Your task to perform on an android device: View the shopping cart on newegg. Search for logitech g910 on newegg, select the first entry, add it to the cart, then select checkout. Image 0: 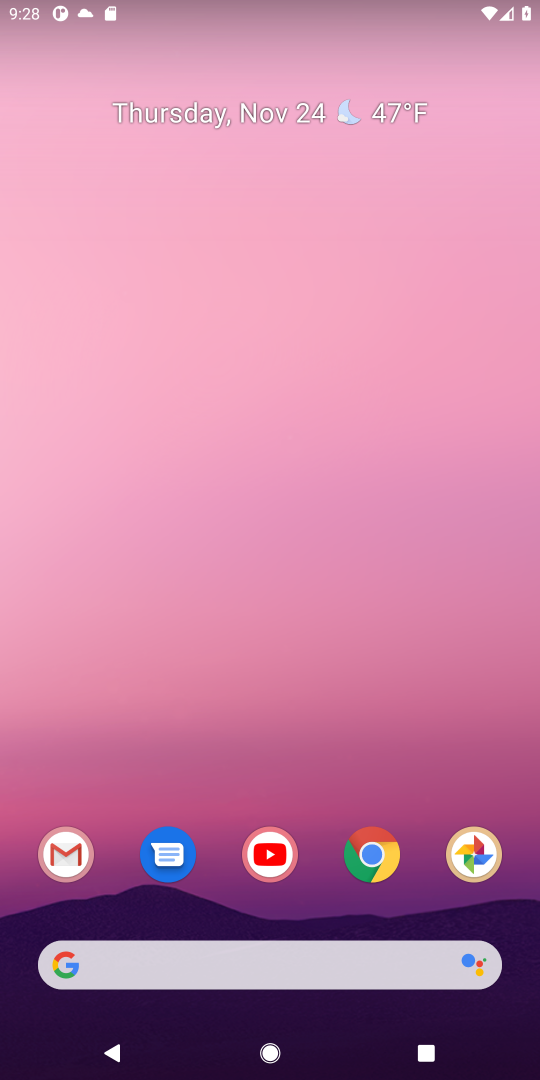
Step 0: click (381, 864)
Your task to perform on an android device: View the shopping cart on newegg. Search for logitech g910 on newegg, select the first entry, add it to the cart, then select checkout. Image 1: 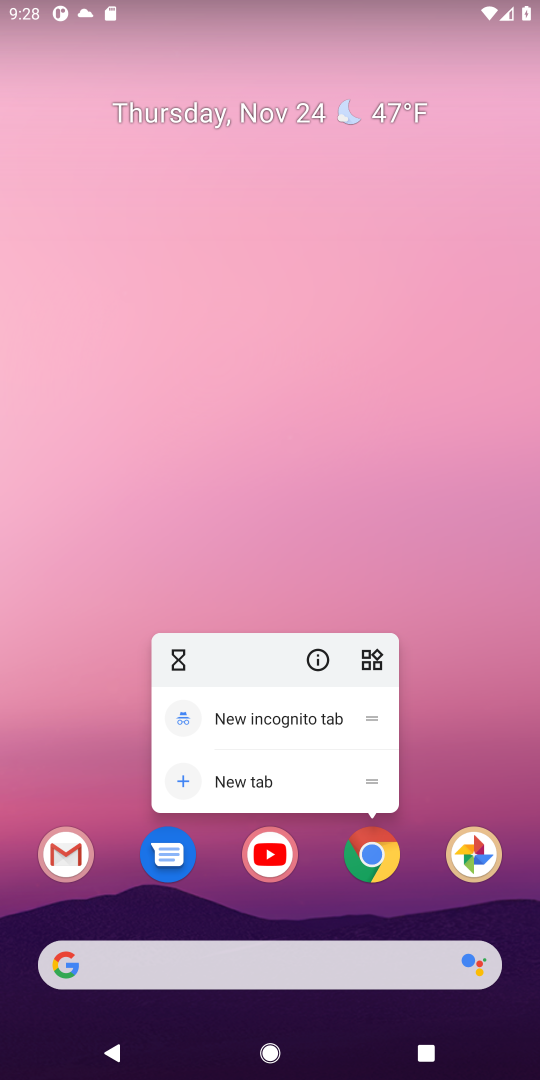
Step 1: click (381, 864)
Your task to perform on an android device: View the shopping cart on newegg. Search for logitech g910 on newegg, select the first entry, add it to the cart, then select checkout. Image 2: 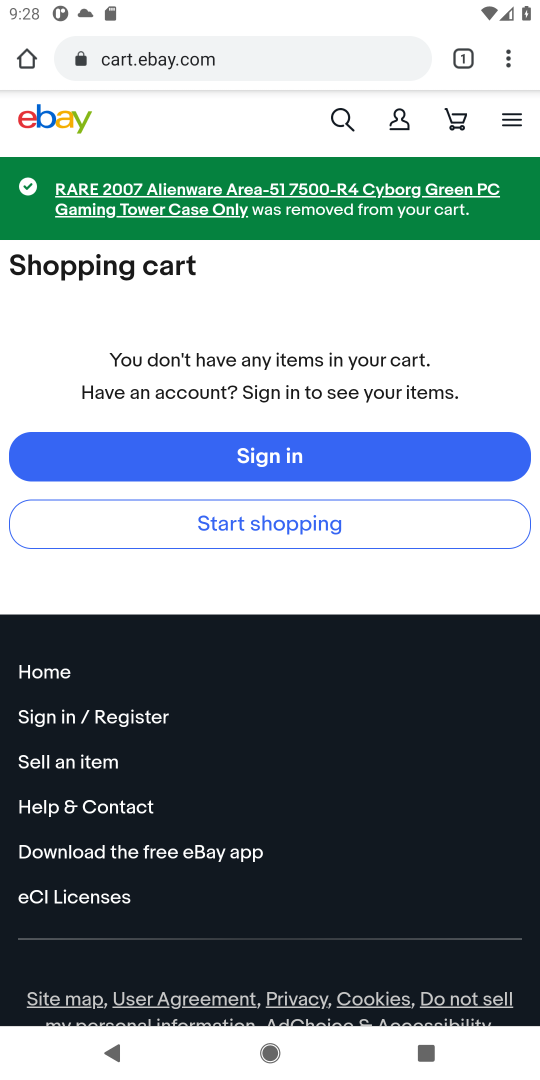
Step 2: click (202, 53)
Your task to perform on an android device: View the shopping cart on newegg. Search for logitech g910 on newegg, select the first entry, add it to the cart, then select checkout. Image 3: 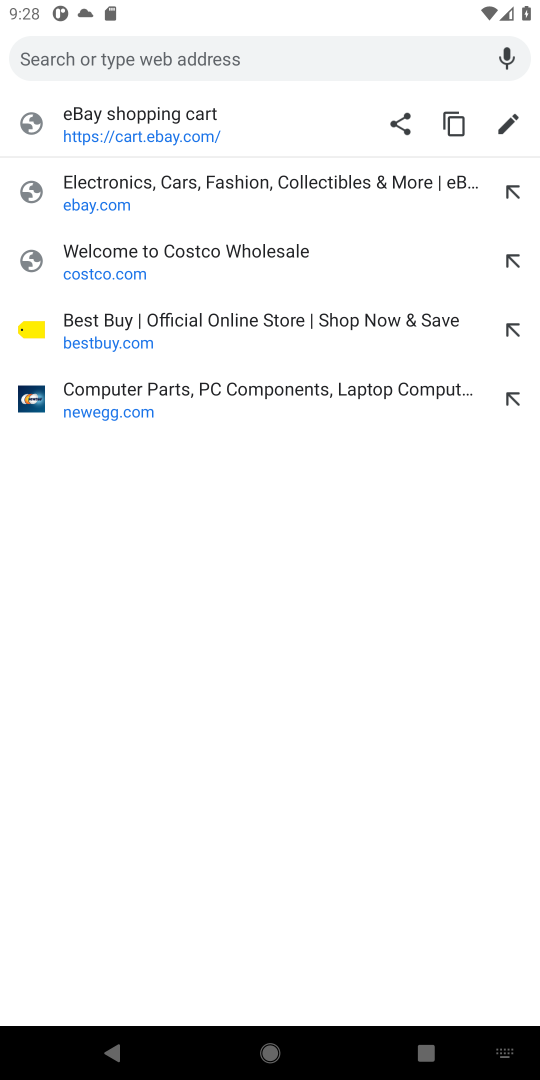
Step 3: click (101, 416)
Your task to perform on an android device: View the shopping cart on newegg. Search for logitech g910 on newegg, select the first entry, add it to the cart, then select checkout. Image 4: 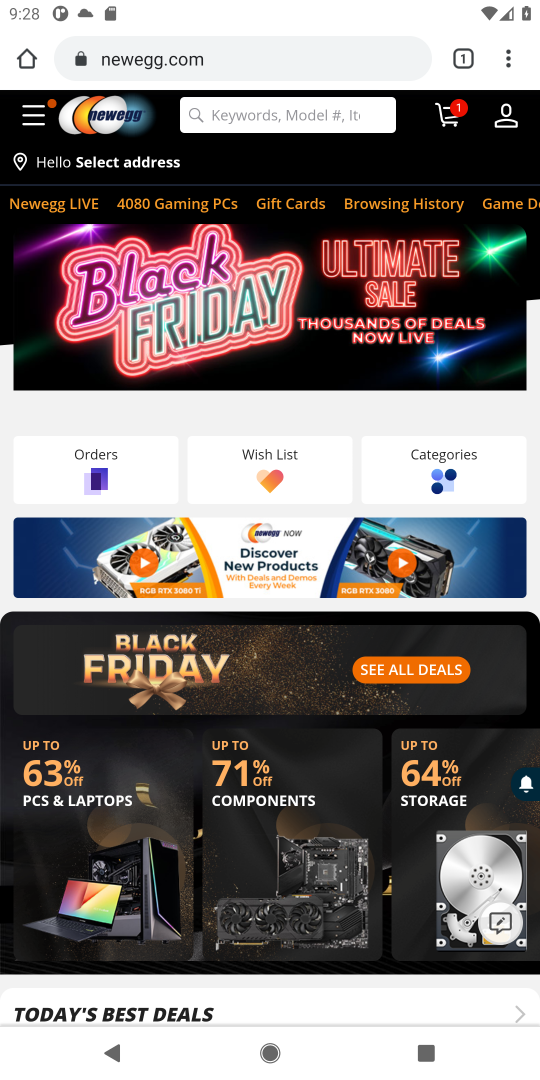
Step 4: click (453, 121)
Your task to perform on an android device: View the shopping cart on newegg. Search for logitech g910 on newegg, select the first entry, add it to the cart, then select checkout. Image 5: 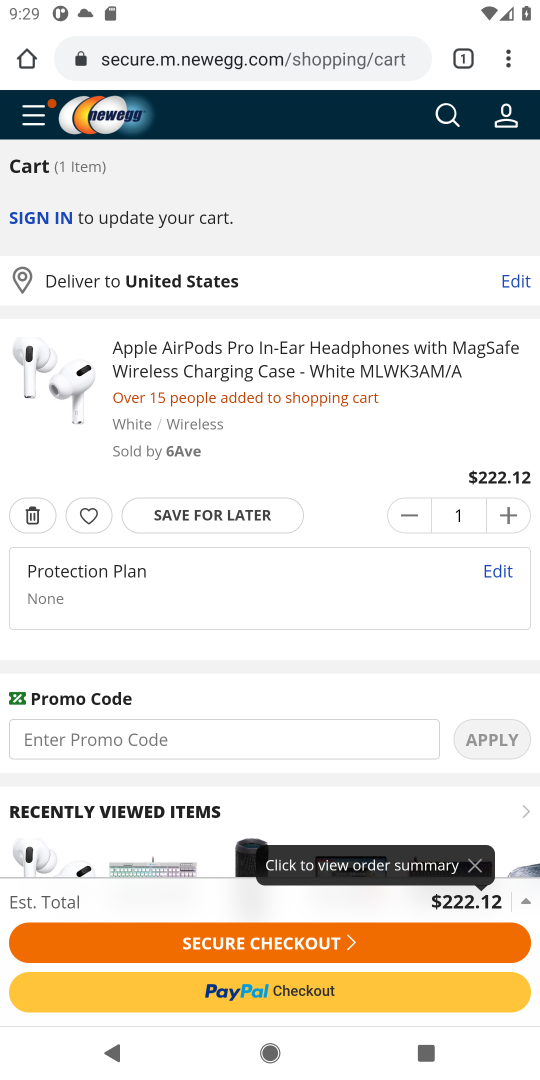
Step 5: click (444, 122)
Your task to perform on an android device: View the shopping cart on newegg. Search for logitech g910 on newegg, select the first entry, add it to the cart, then select checkout. Image 6: 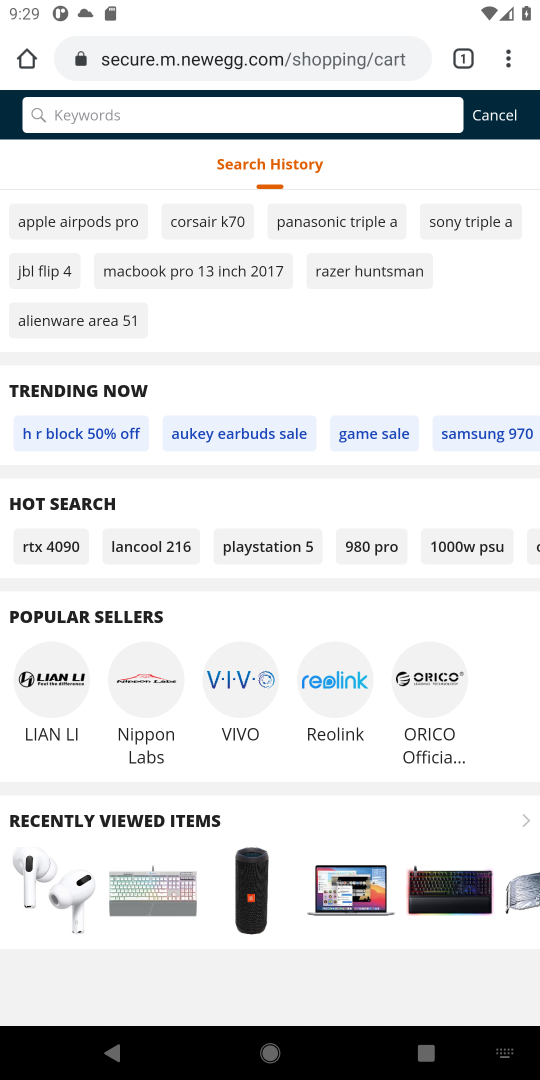
Step 6: click (444, 122)
Your task to perform on an android device: View the shopping cart on newegg. Search for logitech g910 on newegg, select the first entry, add it to the cart, then select checkout. Image 7: 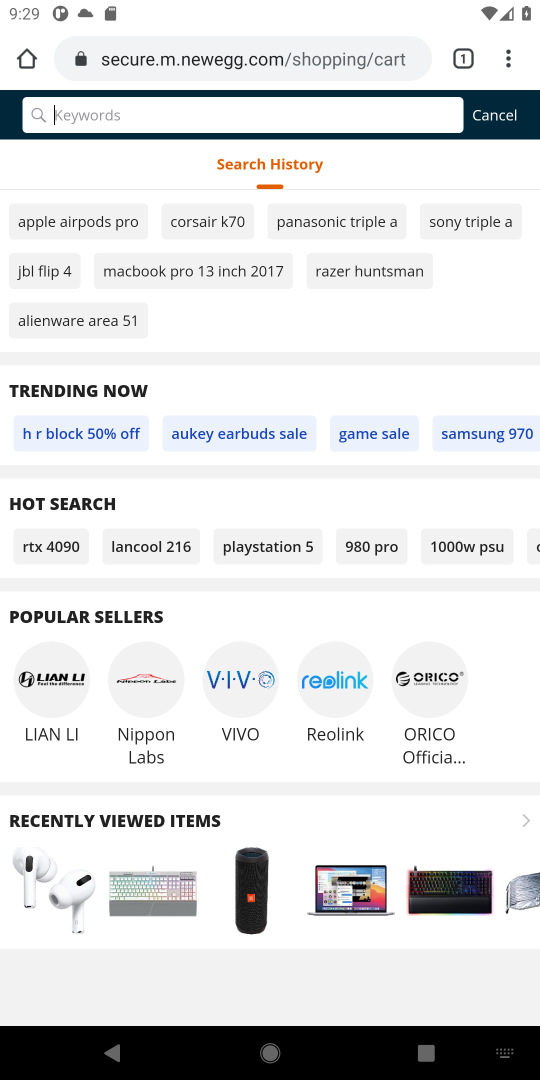
Step 7: type "logitech g910"
Your task to perform on an android device: View the shopping cart on newegg. Search for logitech g910 on newegg, select the first entry, add it to the cart, then select checkout. Image 8: 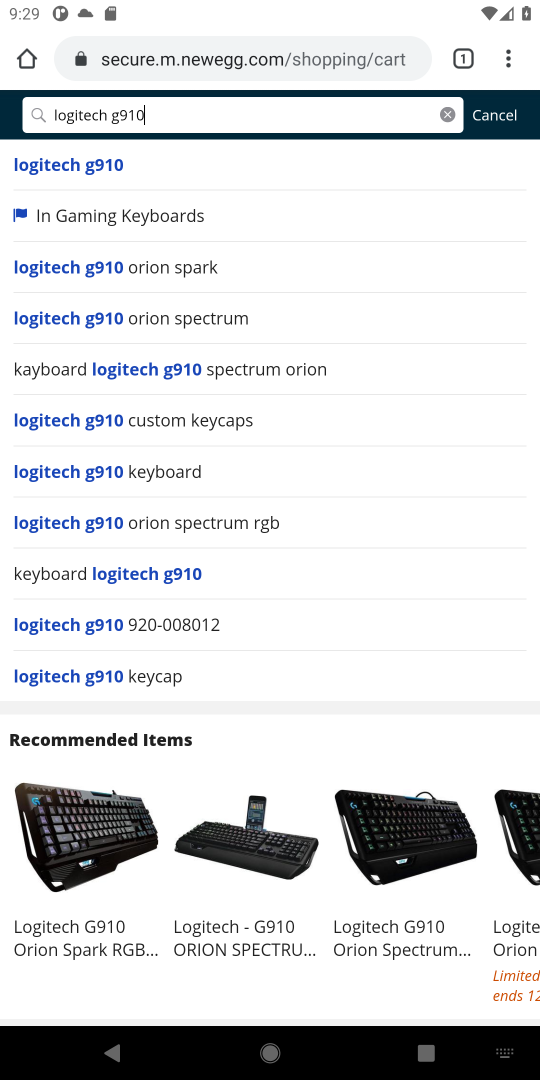
Step 8: click (50, 174)
Your task to perform on an android device: View the shopping cart on newegg. Search for logitech g910 on newegg, select the first entry, add it to the cart, then select checkout. Image 9: 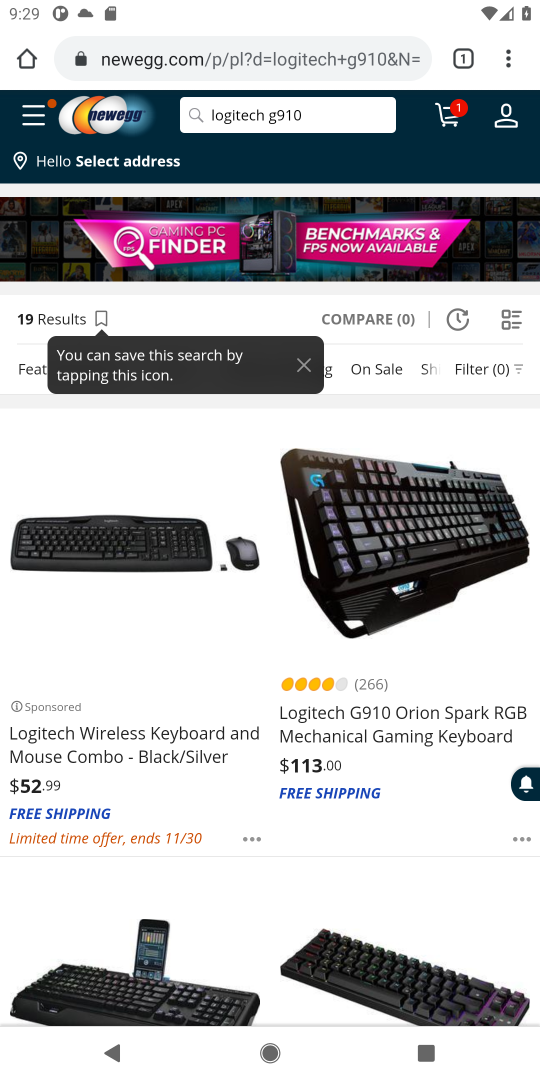
Step 9: task complete